Your task to perform on an android device: read, delete, or share a saved page in the chrome app Image 0: 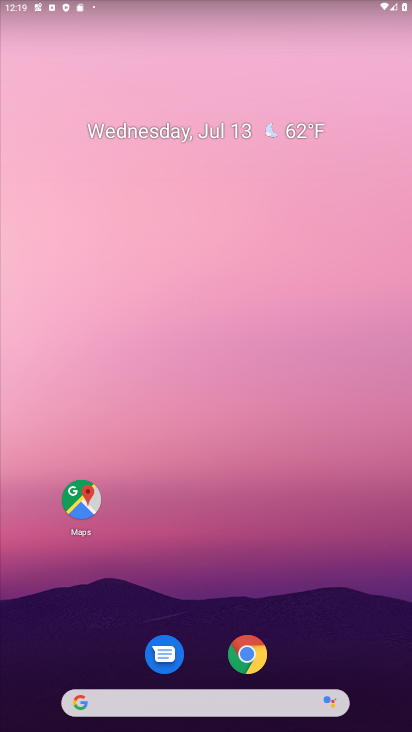
Step 0: drag from (283, 680) to (323, 192)
Your task to perform on an android device: read, delete, or share a saved page in the chrome app Image 1: 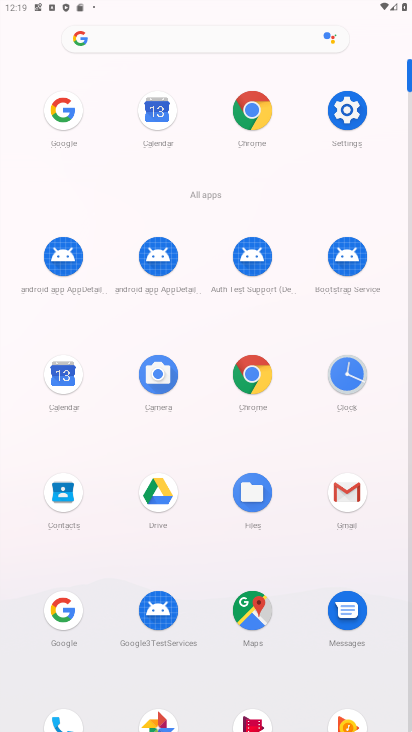
Step 1: click (256, 376)
Your task to perform on an android device: read, delete, or share a saved page in the chrome app Image 2: 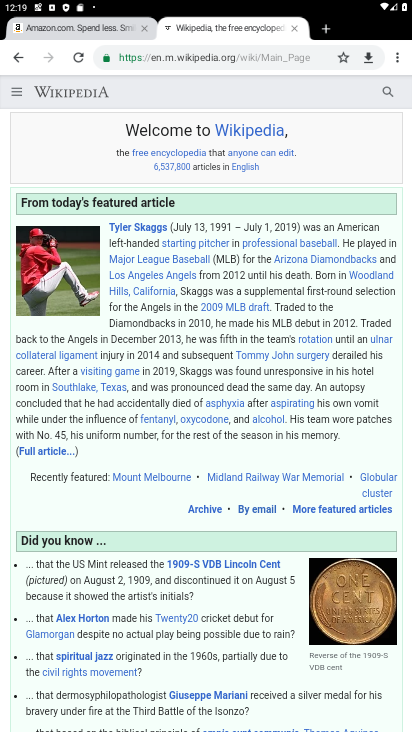
Step 2: task complete